Your task to perform on an android device: clear all cookies in the chrome app Image 0: 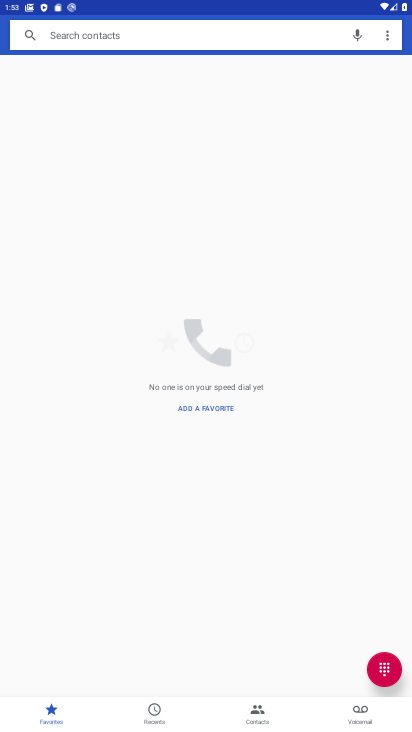
Step 0: press home button
Your task to perform on an android device: clear all cookies in the chrome app Image 1: 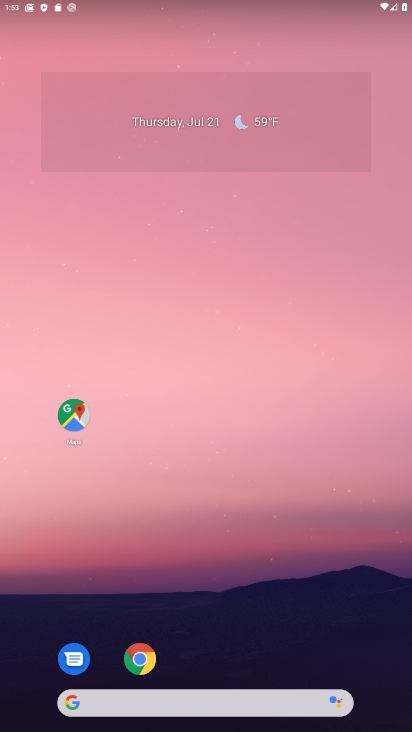
Step 1: drag from (294, 637) to (231, 113)
Your task to perform on an android device: clear all cookies in the chrome app Image 2: 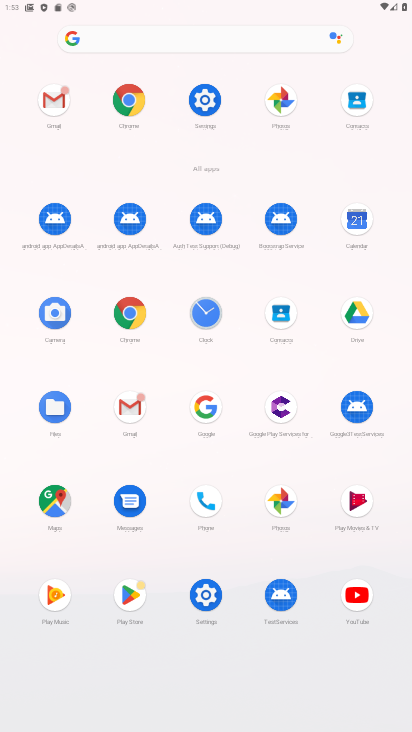
Step 2: click (126, 313)
Your task to perform on an android device: clear all cookies in the chrome app Image 3: 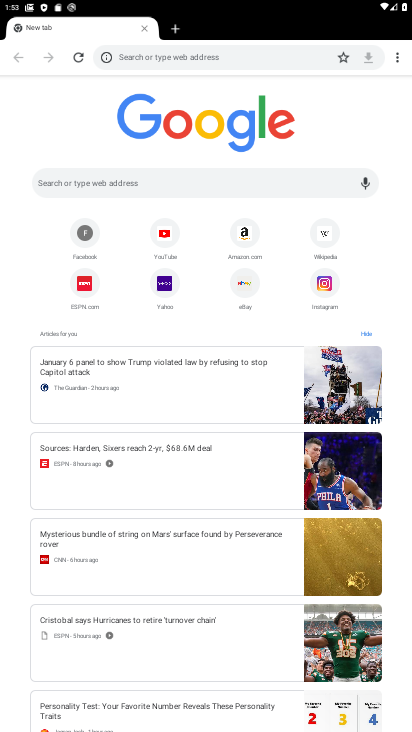
Step 3: drag from (400, 52) to (287, 261)
Your task to perform on an android device: clear all cookies in the chrome app Image 4: 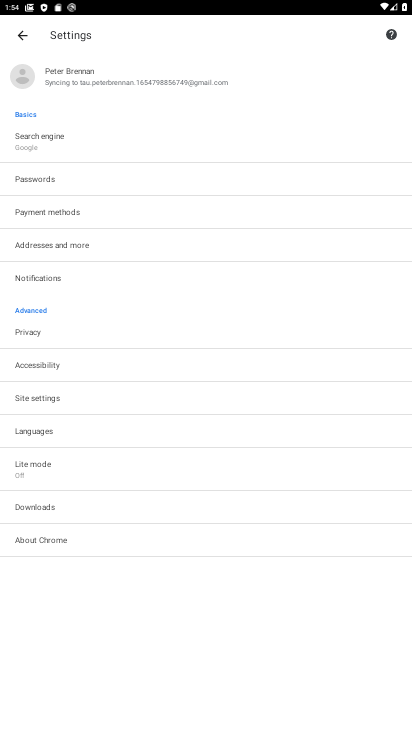
Step 4: click (24, 39)
Your task to perform on an android device: clear all cookies in the chrome app Image 5: 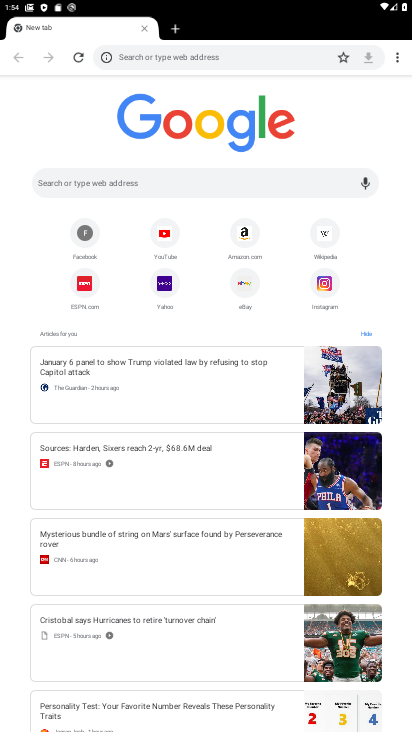
Step 5: drag from (395, 54) to (290, 180)
Your task to perform on an android device: clear all cookies in the chrome app Image 6: 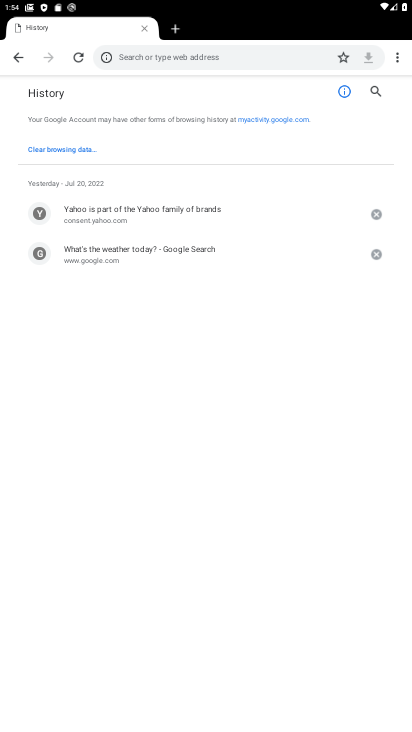
Step 6: click (81, 152)
Your task to perform on an android device: clear all cookies in the chrome app Image 7: 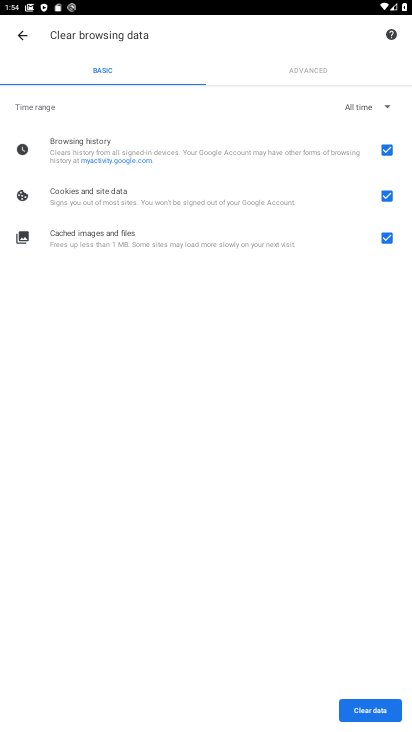
Step 7: click (387, 701)
Your task to perform on an android device: clear all cookies in the chrome app Image 8: 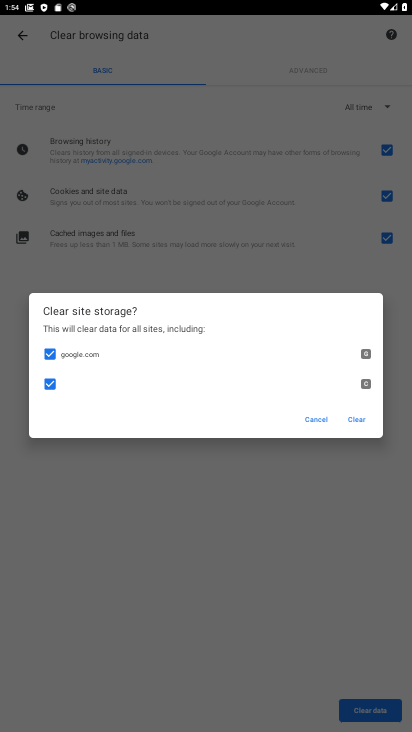
Step 8: click (359, 426)
Your task to perform on an android device: clear all cookies in the chrome app Image 9: 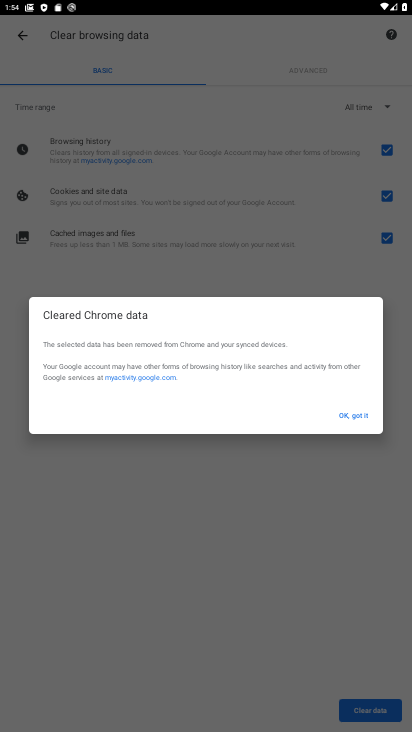
Step 9: task complete